Your task to perform on an android device: Check the news Image 0: 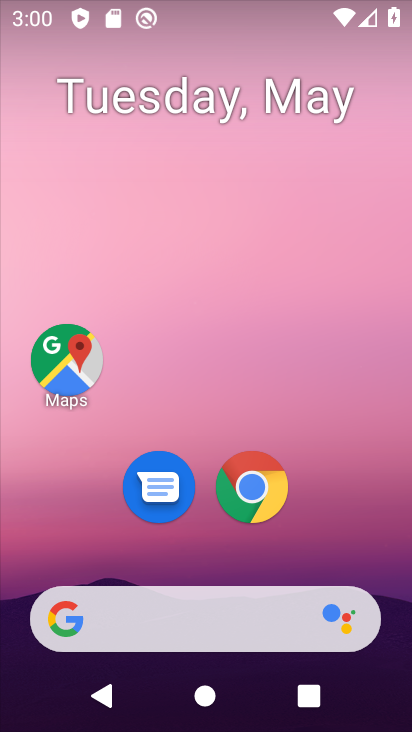
Step 0: click (139, 624)
Your task to perform on an android device: Check the news Image 1: 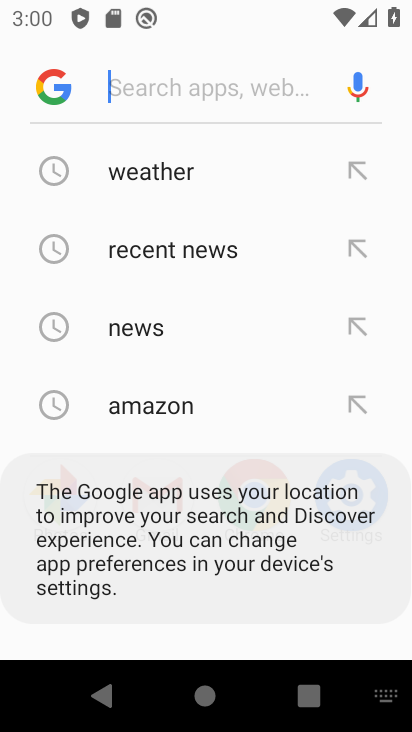
Step 1: click (148, 307)
Your task to perform on an android device: Check the news Image 2: 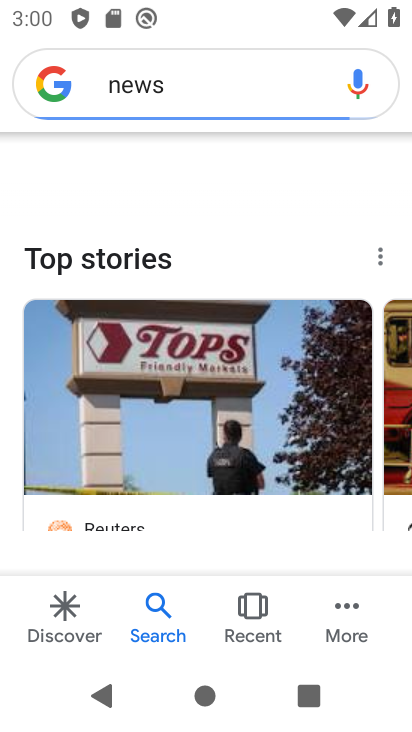
Step 2: task complete